Your task to perform on an android device: Open accessibility settings Image 0: 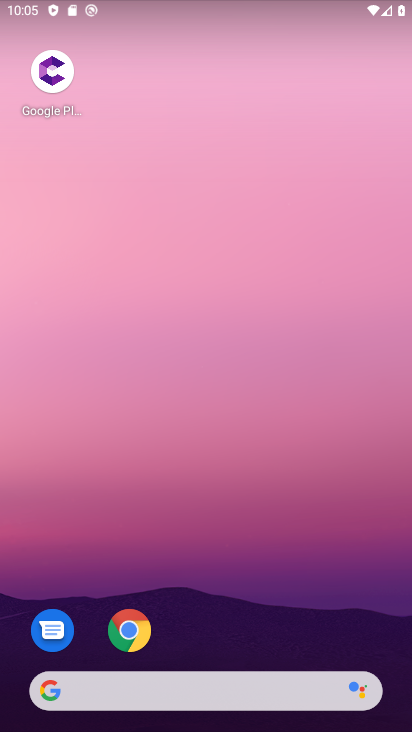
Step 0: press home button
Your task to perform on an android device: Open accessibility settings Image 1: 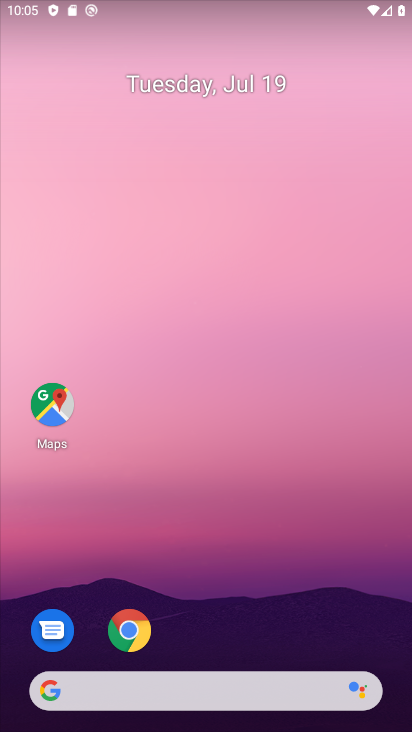
Step 1: press home button
Your task to perform on an android device: Open accessibility settings Image 2: 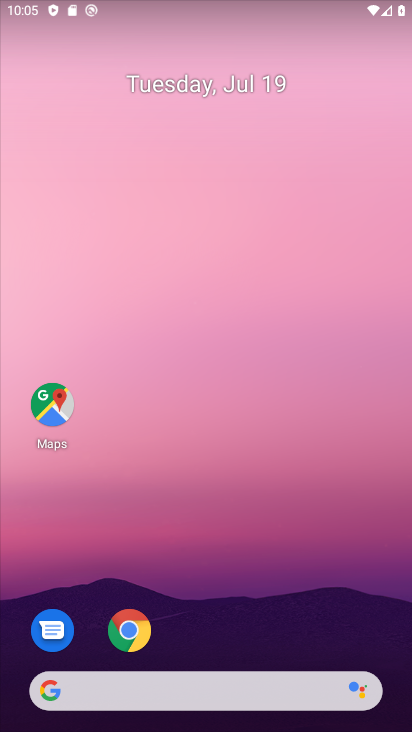
Step 2: press home button
Your task to perform on an android device: Open accessibility settings Image 3: 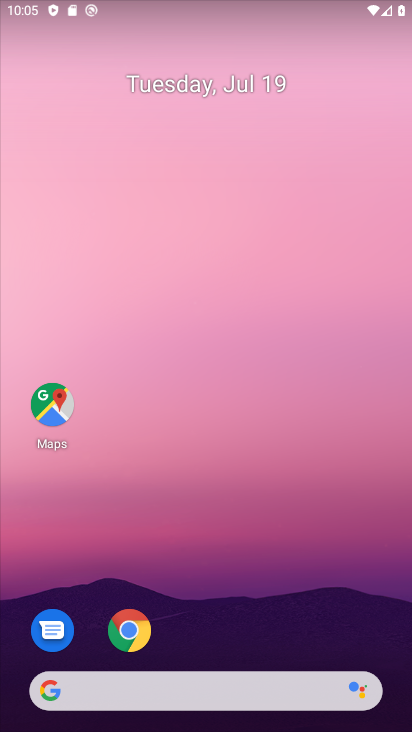
Step 3: drag from (263, 616) to (289, 81)
Your task to perform on an android device: Open accessibility settings Image 4: 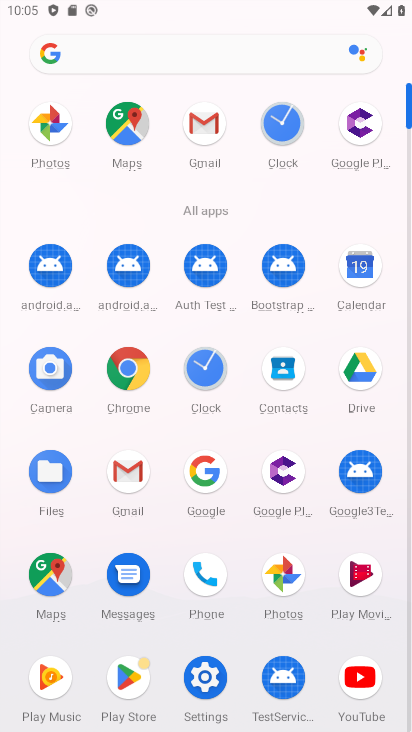
Step 4: click (194, 682)
Your task to perform on an android device: Open accessibility settings Image 5: 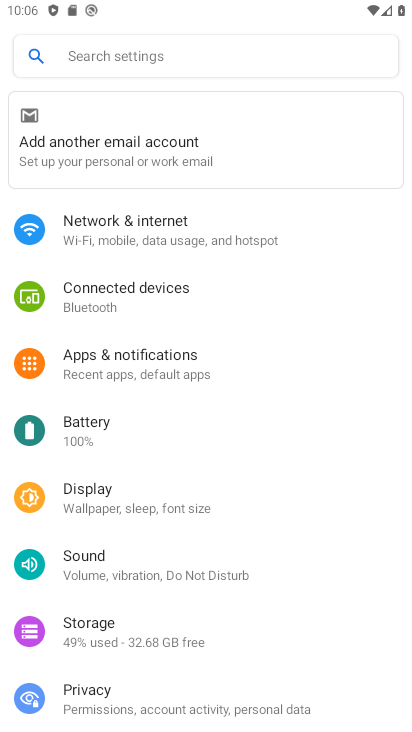
Step 5: drag from (150, 663) to (147, 257)
Your task to perform on an android device: Open accessibility settings Image 6: 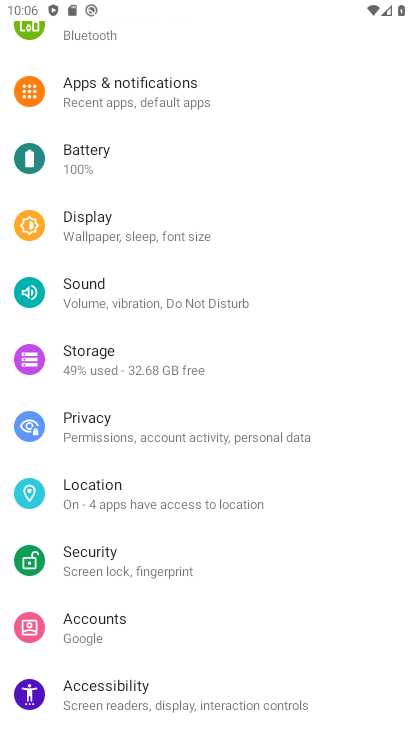
Step 6: click (126, 695)
Your task to perform on an android device: Open accessibility settings Image 7: 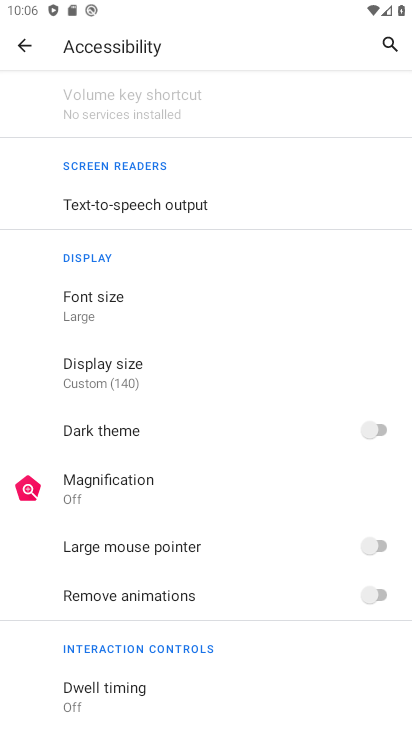
Step 7: task complete